Your task to perform on an android device: Open Google Maps and go to "Timeline" Image 0: 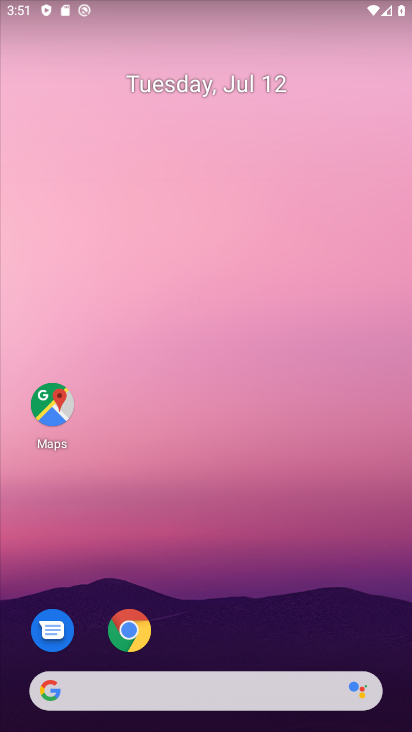
Step 0: click (50, 416)
Your task to perform on an android device: Open Google Maps and go to "Timeline" Image 1: 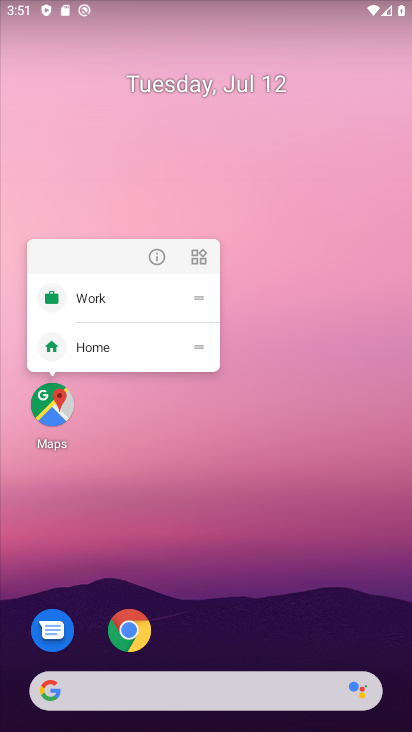
Step 1: click (50, 416)
Your task to perform on an android device: Open Google Maps and go to "Timeline" Image 2: 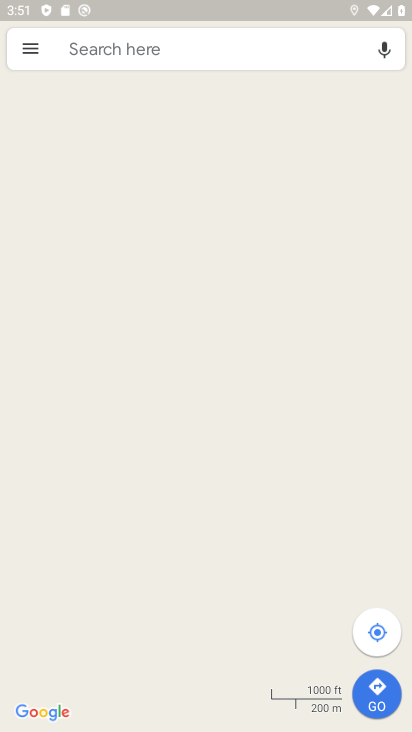
Step 2: click (37, 53)
Your task to perform on an android device: Open Google Maps and go to "Timeline" Image 3: 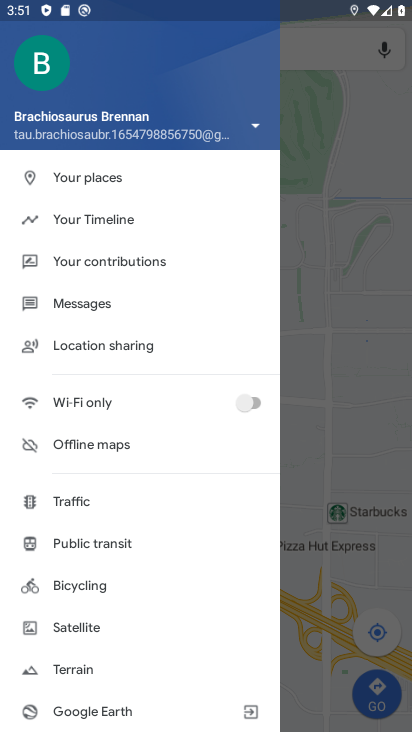
Step 3: click (105, 218)
Your task to perform on an android device: Open Google Maps and go to "Timeline" Image 4: 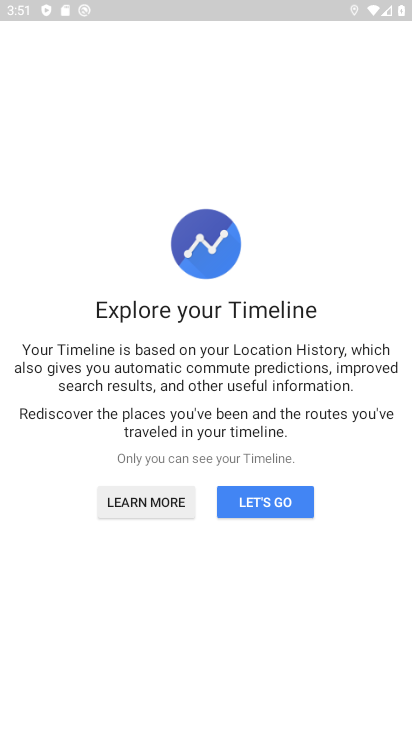
Step 4: click (264, 493)
Your task to perform on an android device: Open Google Maps and go to "Timeline" Image 5: 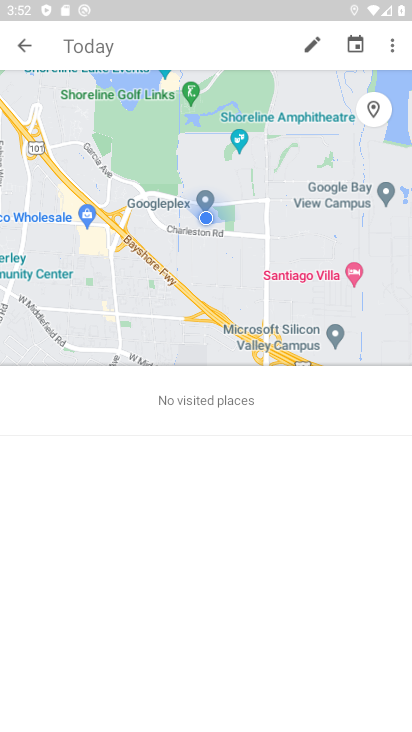
Step 5: task complete